Your task to perform on an android device: toggle javascript in the chrome app Image 0: 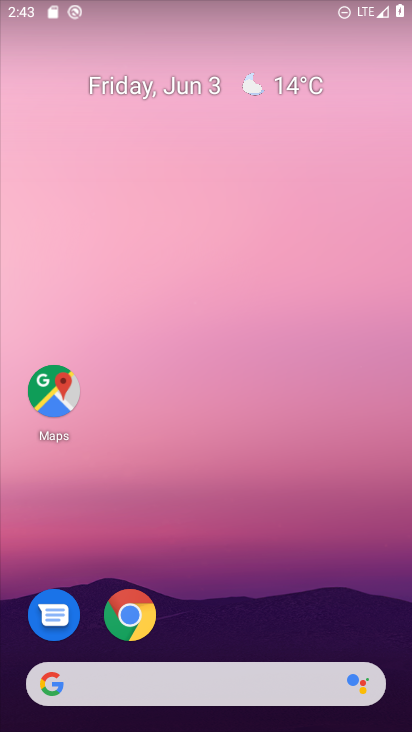
Step 0: drag from (186, 574) to (150, 0)
Your task to perform on an android device: toggle javascript in the chrome app Image 1: 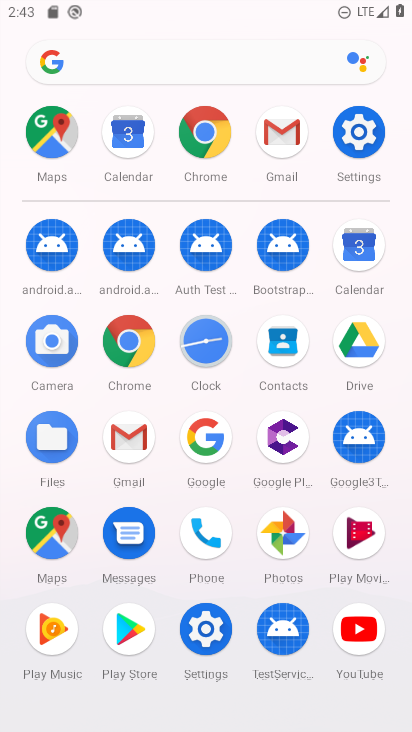
Step 1: click (120, 341)
Your task to perform on an android device: toggle javascript in the chrome app Image 2: 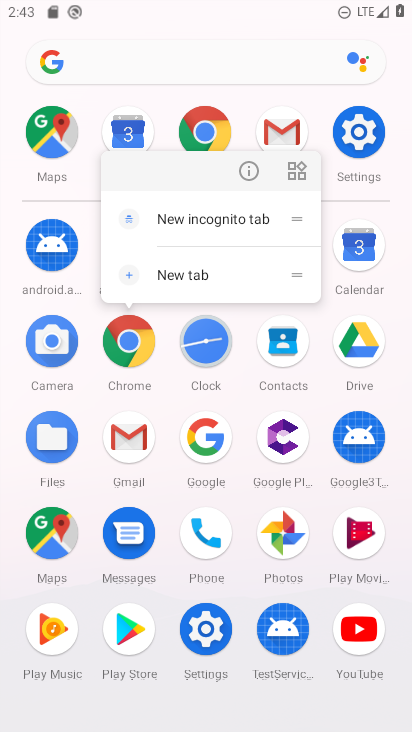
Step 2: click (245, 175)
Your task to perform on an android device: toggle javascript in the chrome app Image 3: 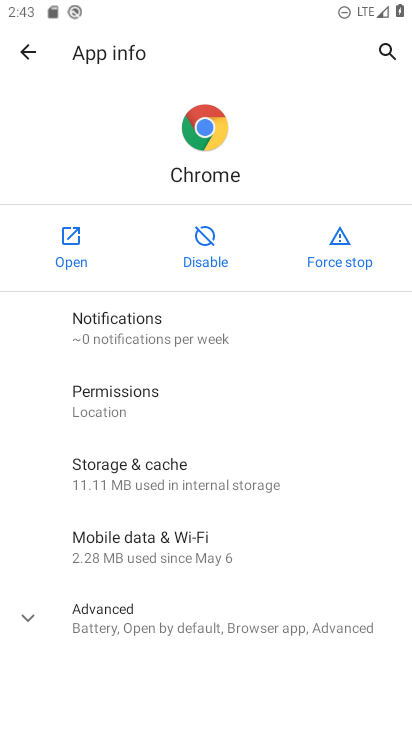
Step 3: click (71, 241)
Your task to perform on an android device: toggle javascript in the chrome app Image 4: 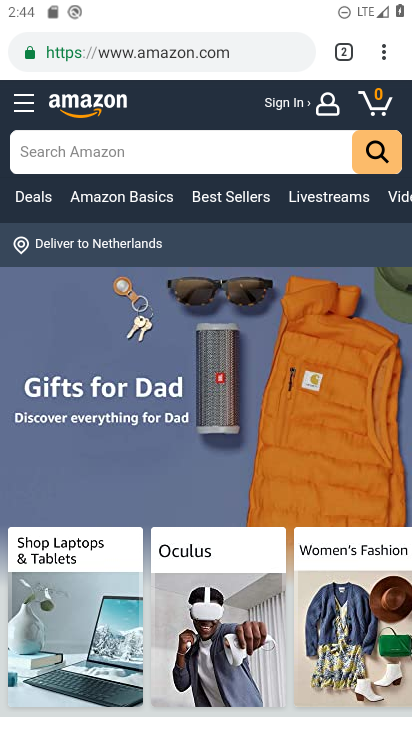
Step 4: click (384, 57)
Your task to perform on an android device: toggle javascript in the chrome app Image 5: 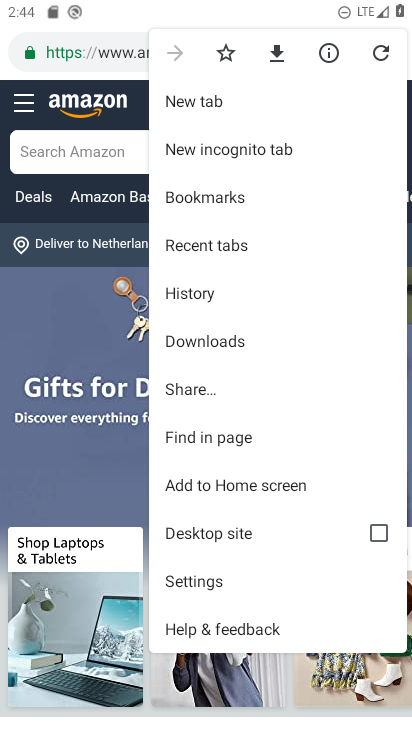
Step 5: click (232, 586)
Your task to perform on an android device: toggle javascript in the chrome app Image 6: 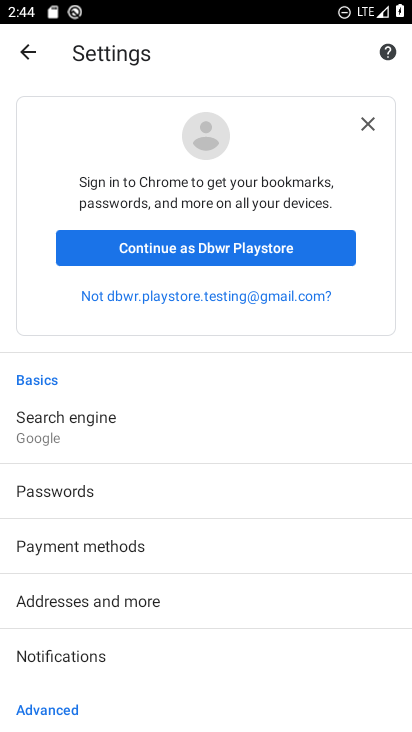
Step 6: drag from (149, 604) to (211, 183)
Your task to perform on an android device: toggle javascript in the chrome app Image 7: 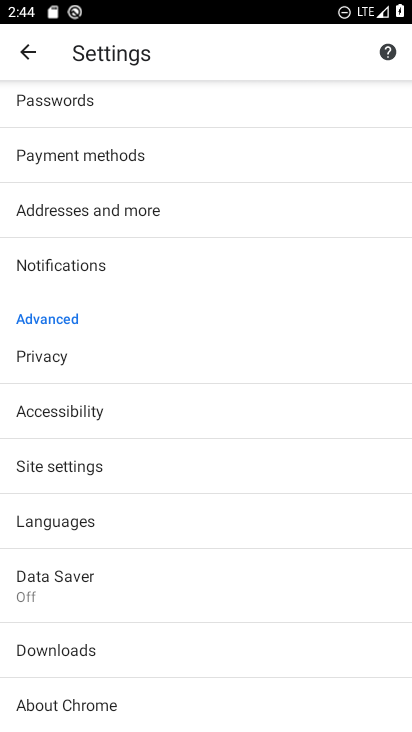
Step 7: click (138, 462)
Your task to perform on an android device: toggle javascript in the chrome app Image 8: 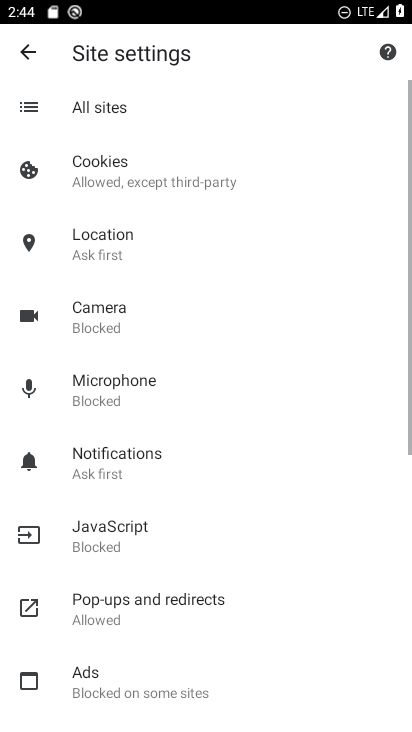
Step 8: drag from (84, 546) to (265, 96)
Your task to perform on an android device: toggle javascript in the chrome app Image 9: 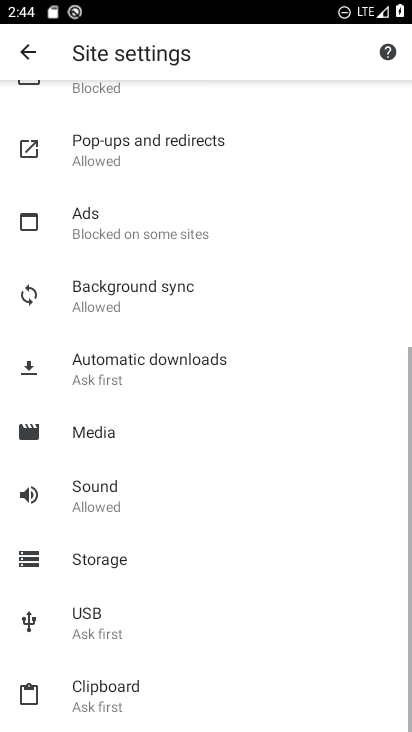
Step 9: drag from (245, 147) to (240, 461)
Your task to perform on an android device: toggle javascript in the chrome app Image 10: 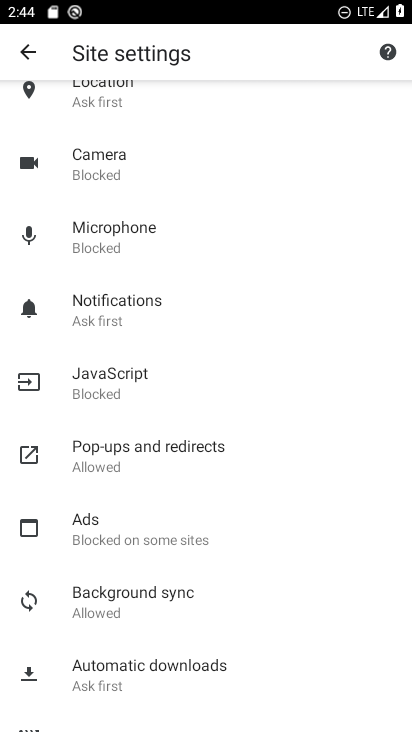
Step 10: click (181, 368)
Your task to perform on an android device: toggle javascript in the chrome app Image 11: 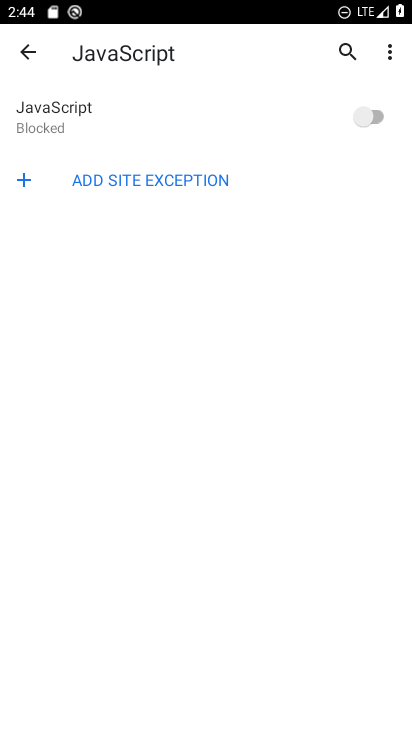
Step 11: click (361, 99)
Your task to perform on an android device: toggle javascript in the chrome app Image 12: 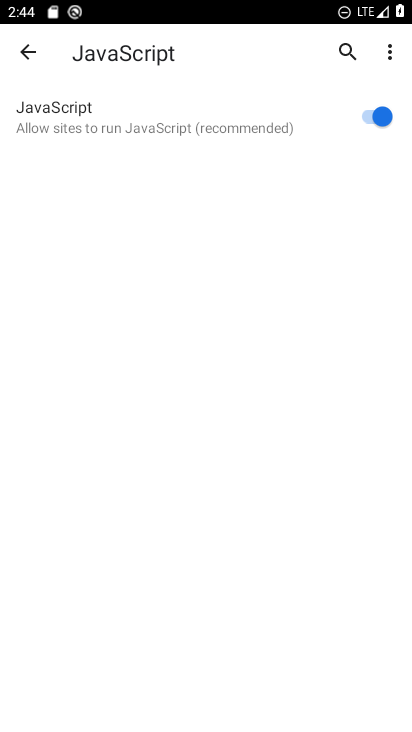
Step 12: task complete